Your task to perform on an android device: toggle pop-ups in chrome Image 0: 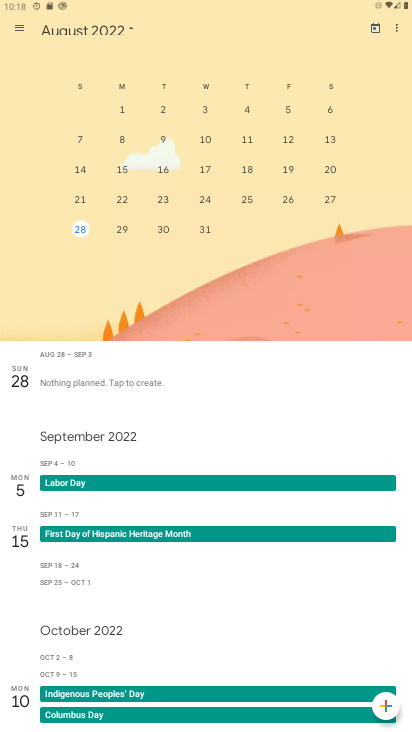
Step 0: press home button
Your task to perform on an android device: toggle pop-ups in chrome Image 1: 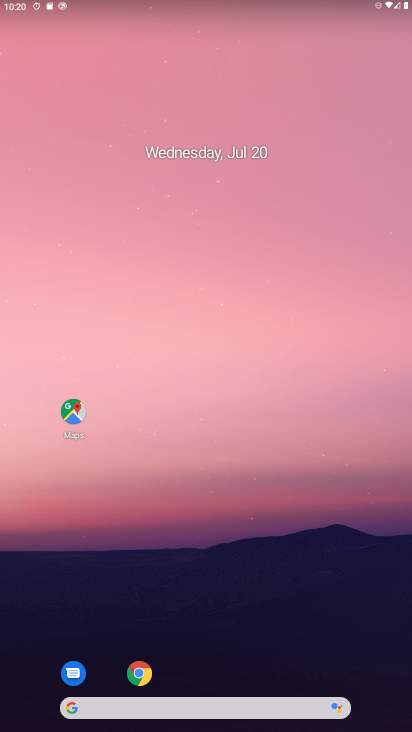
Step 1: drag from (323, 630) to (161, 48)
Your task to perform on an android device: toggle pop-ups in chrome Image 2: 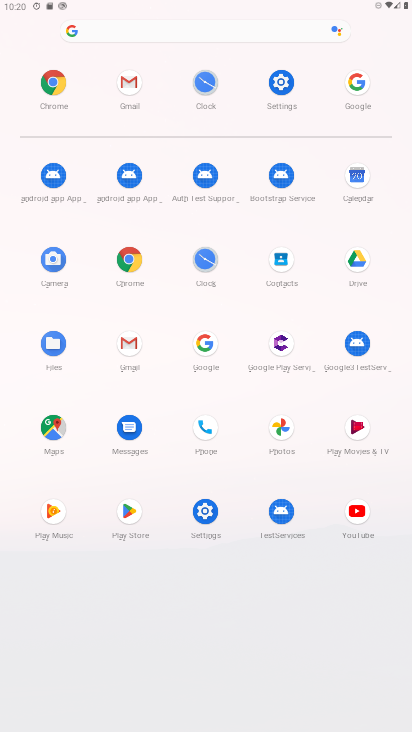
Step 2: click (130, 263)
Your task to perform on an android device: toggle pop-ups in chrome Image 3: 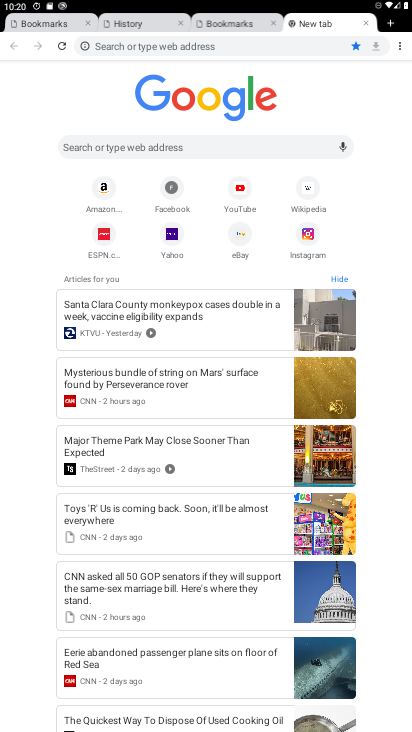
Step 3: click (398, 38)
Your task to perform on an android device: toggle pop-ups in chrome Image 4: 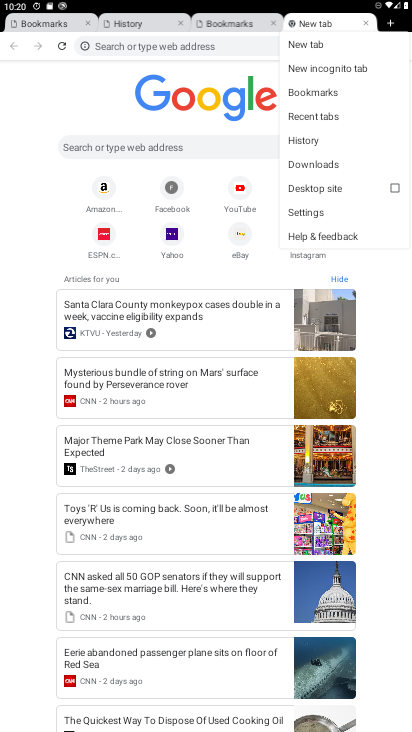
Step 4: click (319, 216)
Your task to perform on an android device: toggle pop-ups in chrome Image 5: 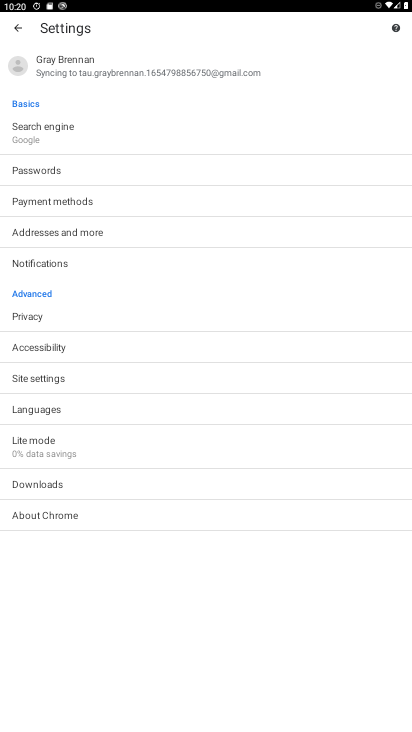
Step 5: click (45, 371)
Your task to perform on an android device: toggle pop-ups in chrome Image 6: 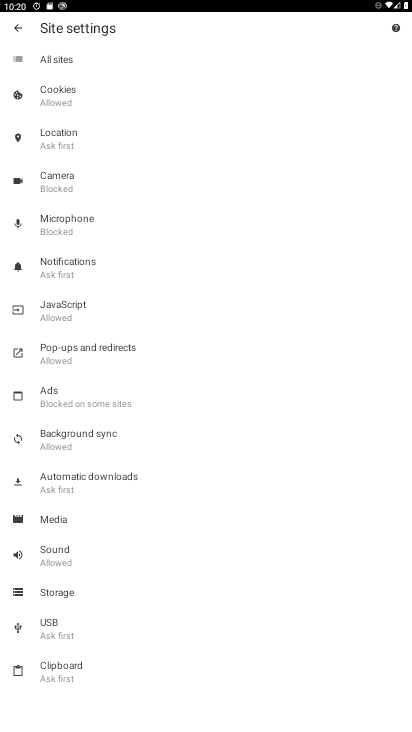
Step 6: click (105, 355)
Your task to perform on an android device: toggle pop-ups in chrome Image 7: 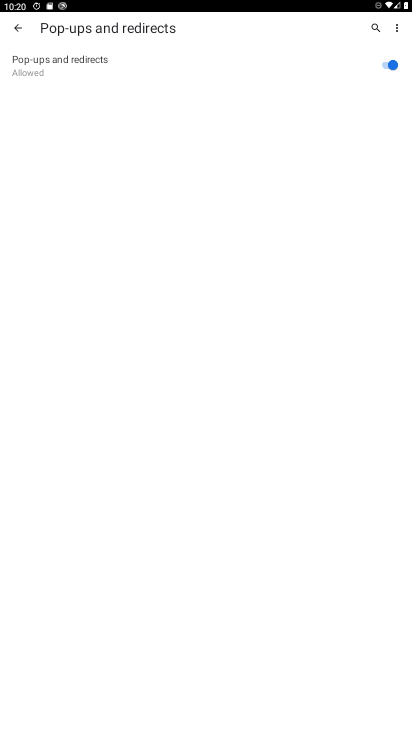
Step 7: click (381, 61)
Your task to perform on an android device: toggle pop-ups in chrome Image 8: 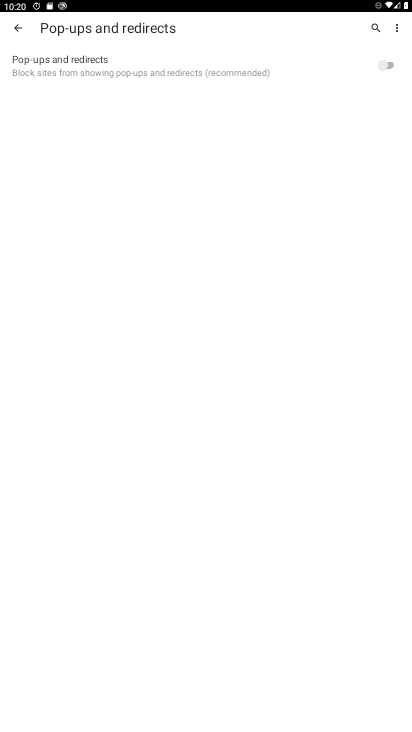
Step 8: task complete